Your task to perform on an android device: turn pop-ups off in chrome Image 0: 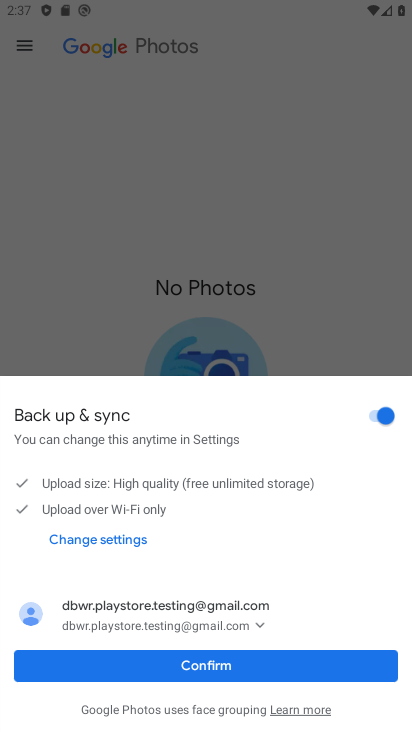
Step 0: press home button
Your task to perform on an android device: turn pop-ups off in chrome Image 1: 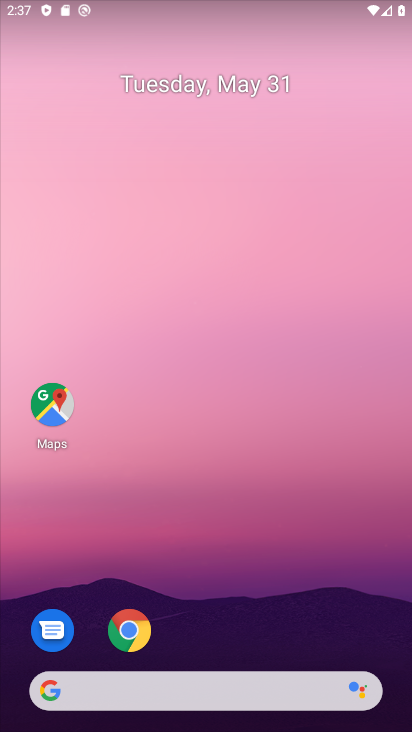
Step 1: drag from (266, 639) to (245, 123)
Your task to perform on an android device: turn pop-ups off in chrome Image 2: 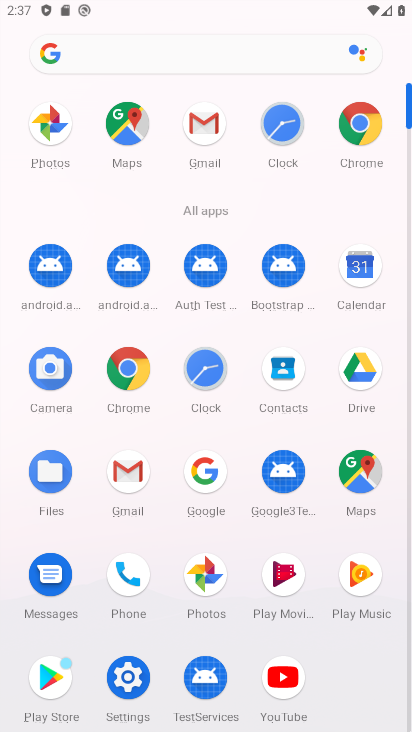
Step 2: click (357, 143)
Your task to perform on an android device: turn pop-ups off in chrome Image 3: 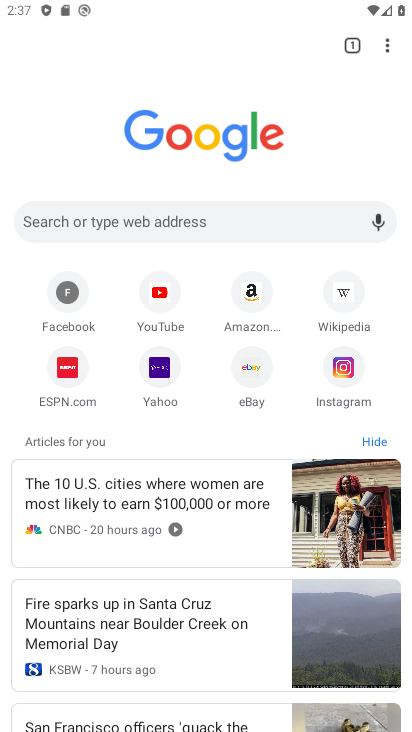
Step 3: click (394, 48)
Your task to perform on an android device: turn pop-ups off in chrome Image 4: 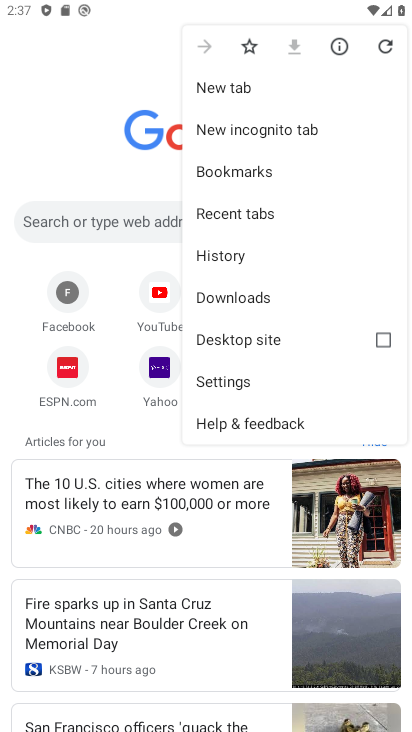
Step 4: click (204, 398)
Your task to perform on an android device: turn pop-ups off in chrome Image 5: 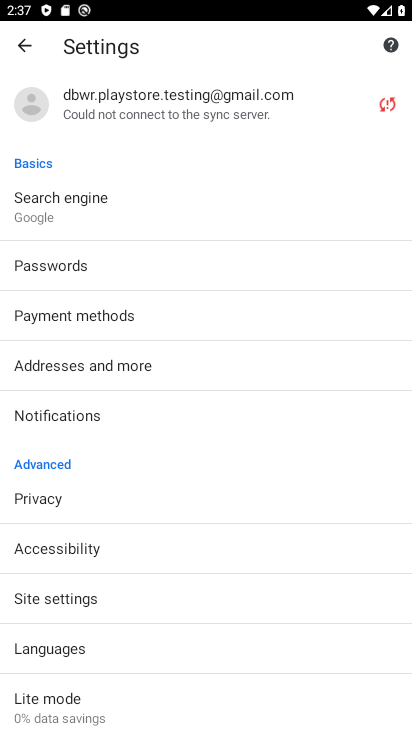
Step 5: click (96, 593)
Your task to perform on an android device: turn pop-ups off in chrome Image 6: 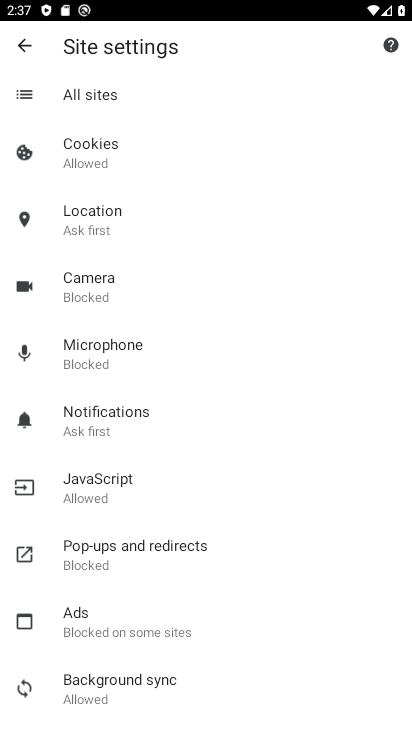
Step 6: click (118, 552)
Your task to perform on an android device: turn pop-ups off in chrome Image 7: 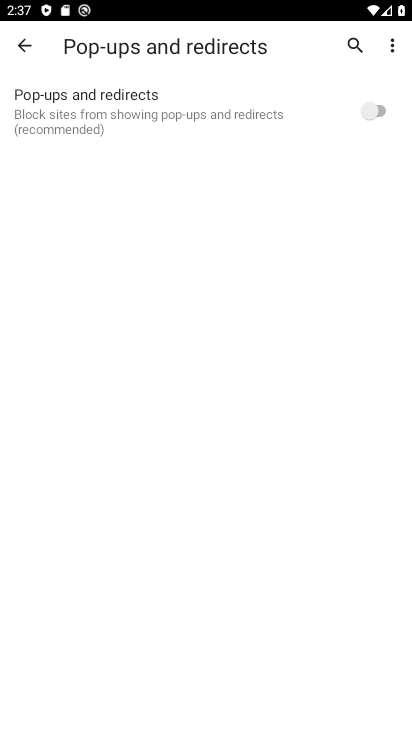
Step 7: task complete